Your task to perform on an android device: turn off priority inbox in the gmail app Image 0: 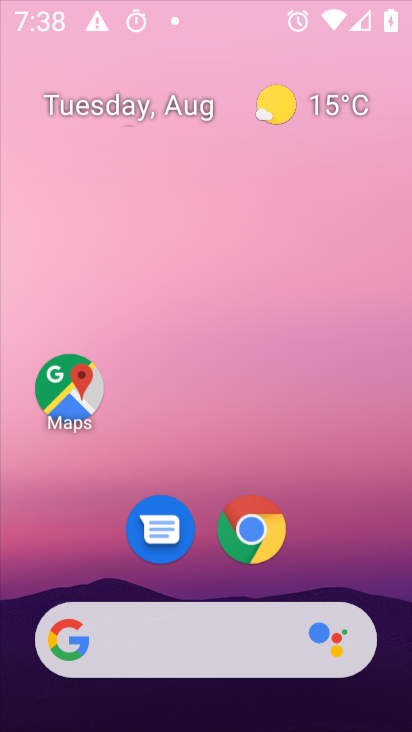
Step 0: press home button
Your task to perform on an android device: turn off priority inbox in the gmail app Image 1: 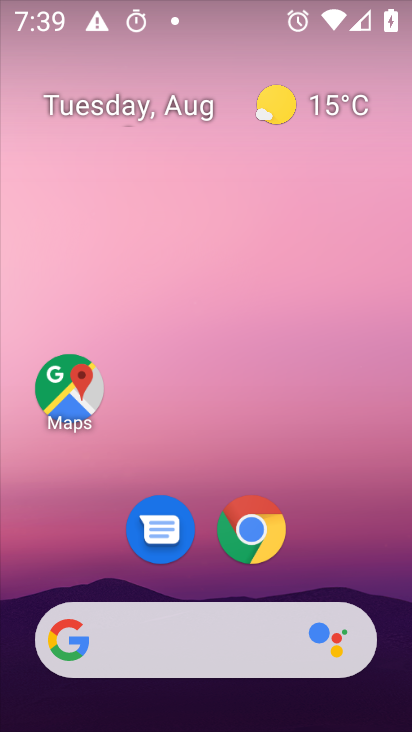
Step 1: drag from (203, 584) to (158, 71)
Your task to perform on an android device: turn off priority inbox in the gmail app Image 2: 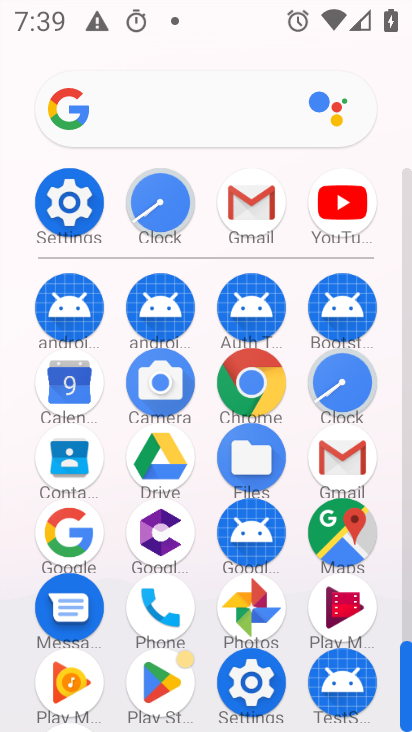
Step 2: click (247, 201)
Your task to perform on an android device: turn off priority inbox in the gmail app Image 3: 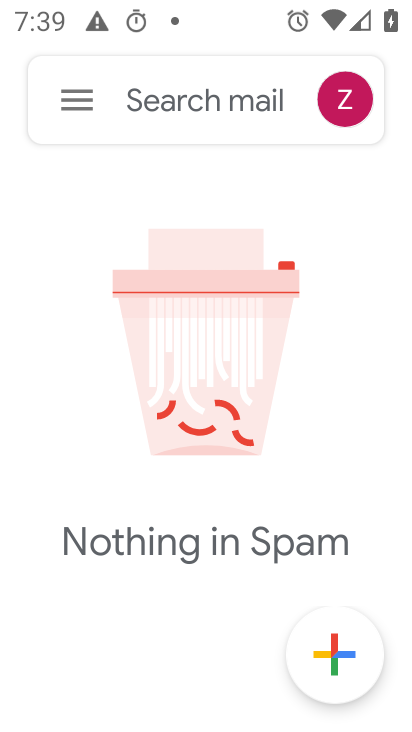
Step 3: click (73, 98)
Your task to perform on an android device: turn off priority inbox in the gmail app Image 4: 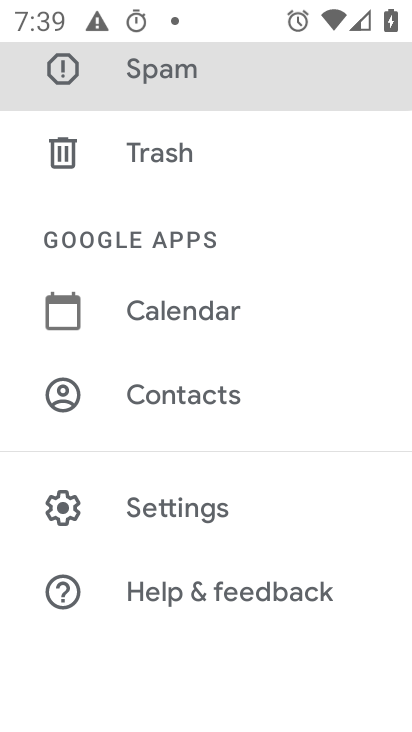
Step 4: click (184, 504)
Your task to perform on an android device: turn off priority inbox in the gmail app Image 5: 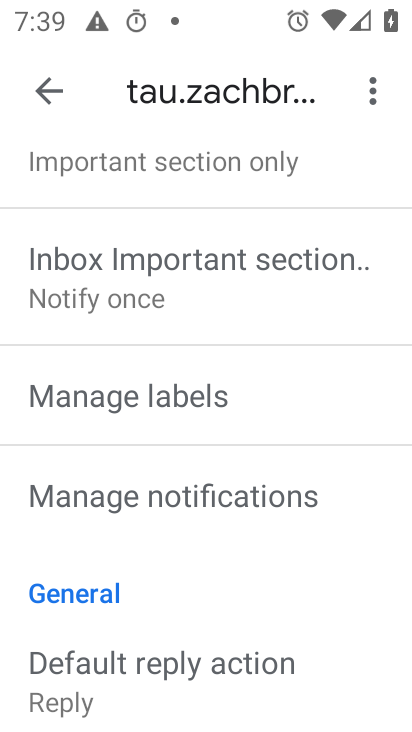
Step 5: drag from (295, 191) to (213, 716)
Your task to perform on an android device: turn off priority inbox in the gmail app Image 6: 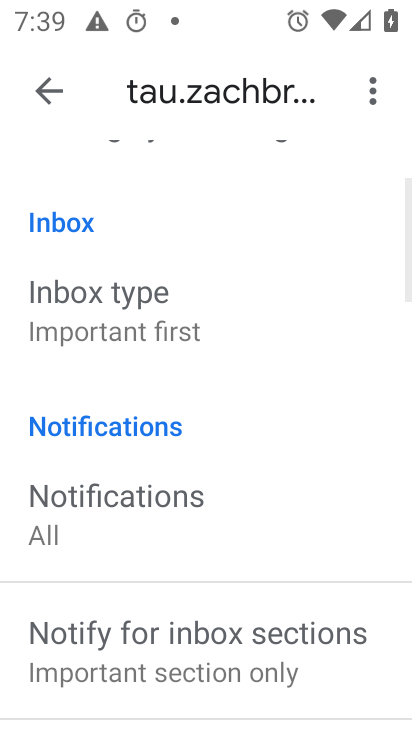
Step 6: click (103, 315)
Your task to perform on an android device: turn off priority inbox in the gmail app Image 7: 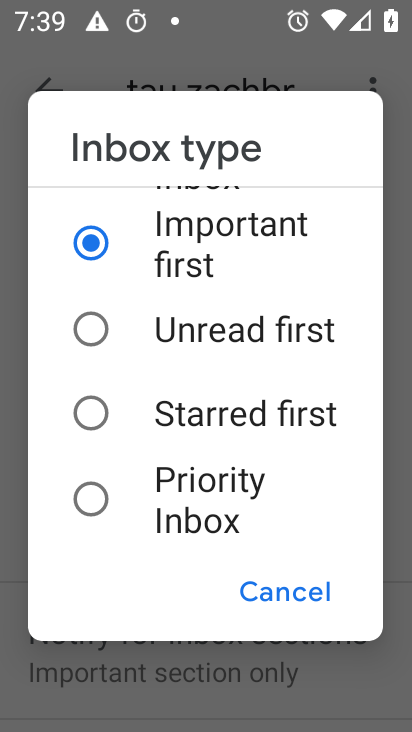
Step 7: click (83, 324)
Your task to perform on an android device: turn off priority inbox in the gmail app Image 8: 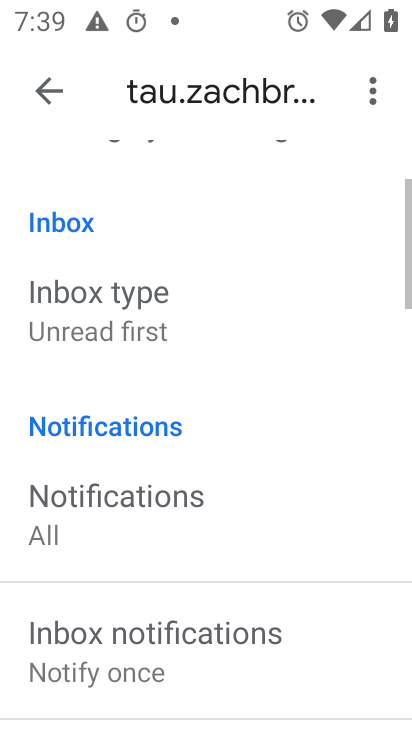
Step 8: task complete